Your task to perform on an android device: clear history in the chrome app Image 0: 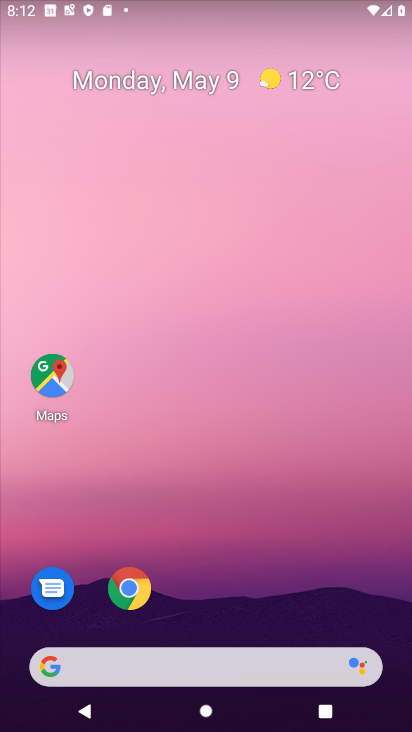
Step 0: drag from (152, 672) to (230, 47)
Your task to perform on an android device: clear history in the chrome app Image 1: 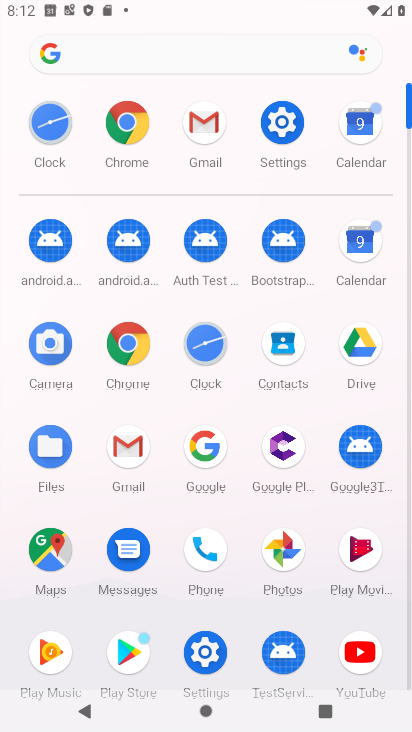
Step 1: click (119, 136)
Your task to perform on an android device: clear history in the chrome app Image 2: 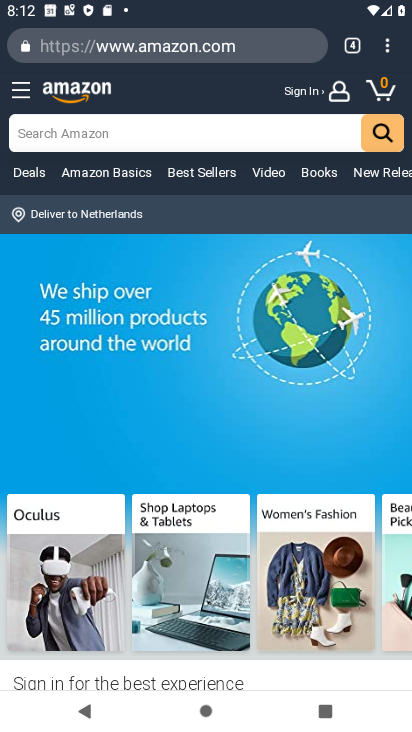
Step 2: drag from (387, 52) to (239, 256)
Your task to perform on an android device: clear history in the chrome app Image 3: 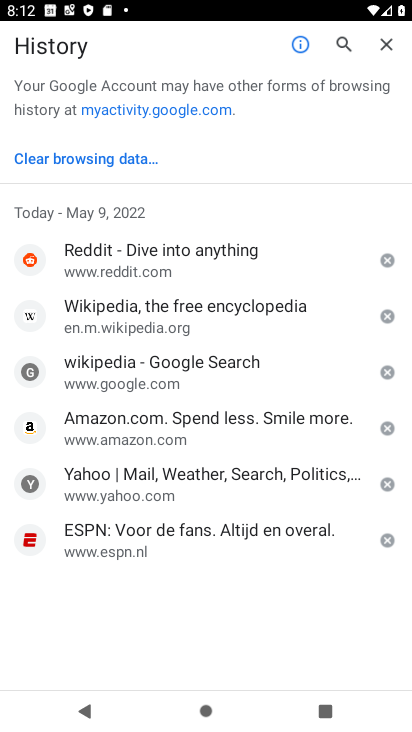
Step 3: click (88, 162)
Your task to perform on an android device: clear history in the chrome app Image 4: 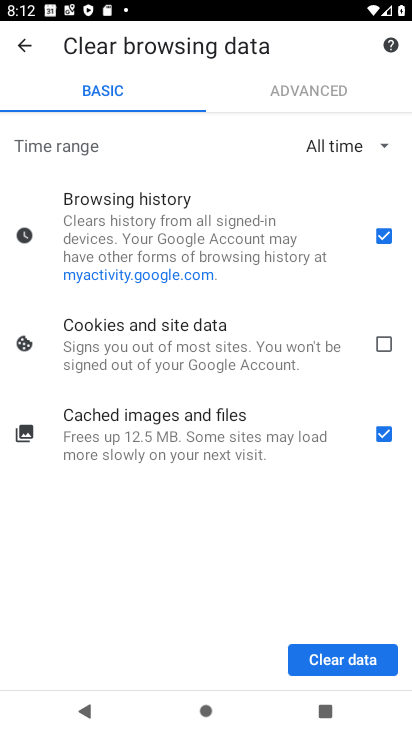
Step 4: click (386, 347)
Your task to perform on an android device: clear history in the chrome app Image 5: 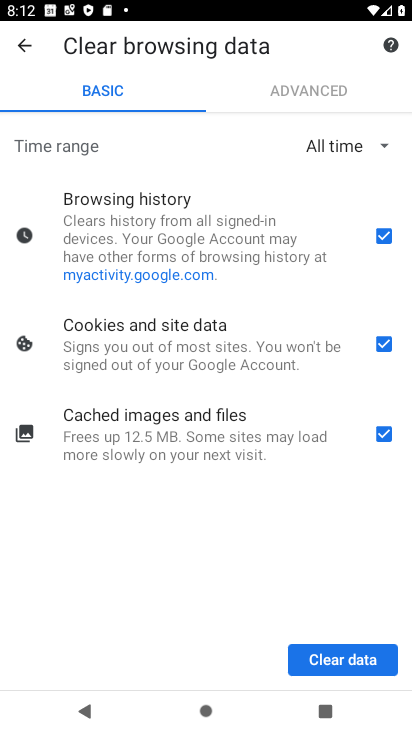
Step 5: click (352, 660)
Your task to perform on an android device: clear history in the chrome app Image 6: 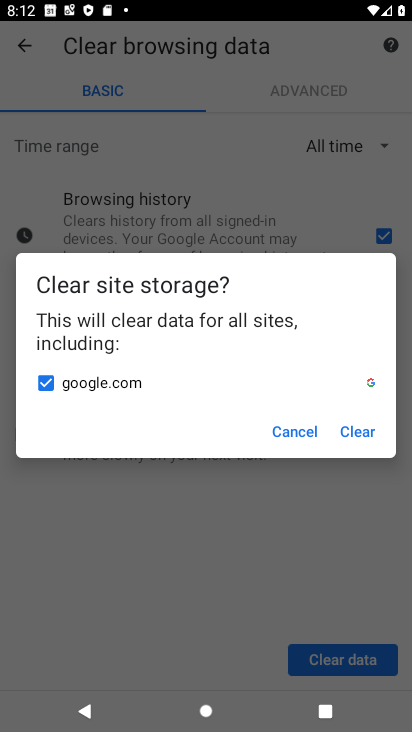
Step 6: click (358, 434)
Your task to perform on an android device: clear history in the chrome app Image 7: 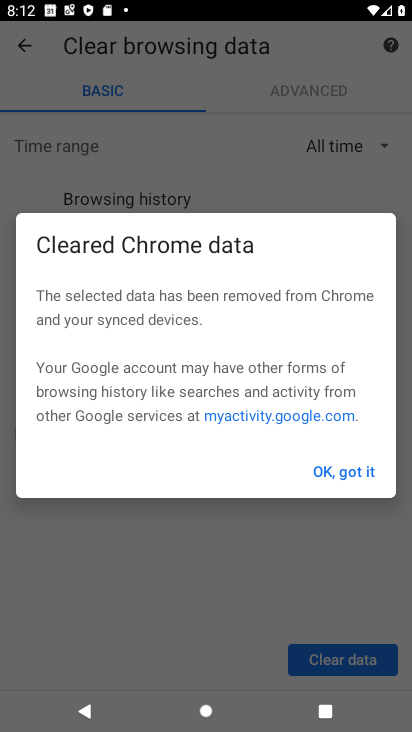
Step 7: click (342, 469)
Your task to perform on an android device: clear history in the chrome app Image 8: 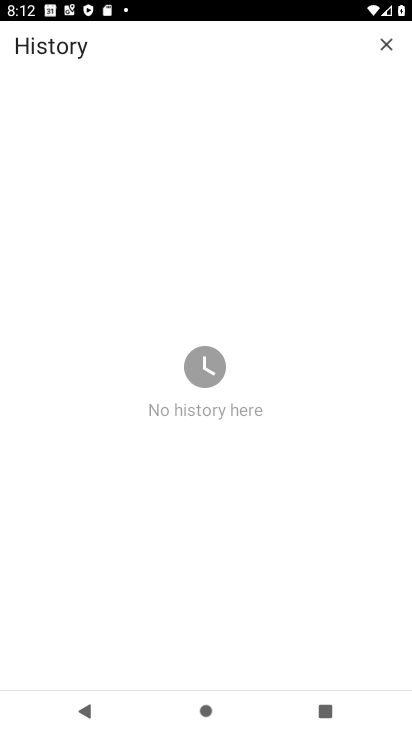
Step 8: task complete